Your task to perform on an android device: Open the Play Movies app and select the watchlist tab. Image 0: 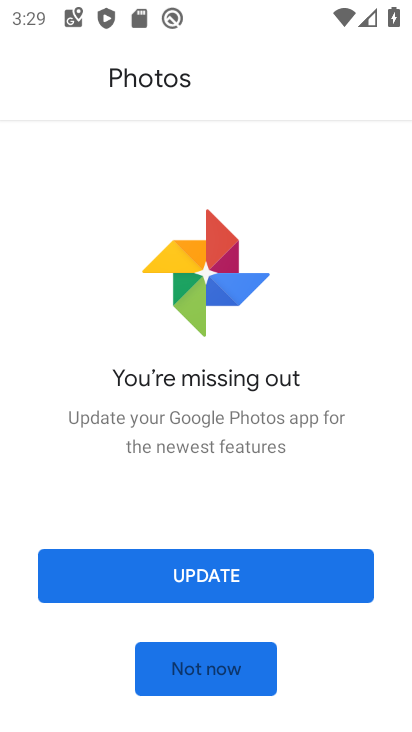
Step 0: press home button
Your task to perform on an android device: Open the Play Movies app and select the watchlist tab. Image 1: 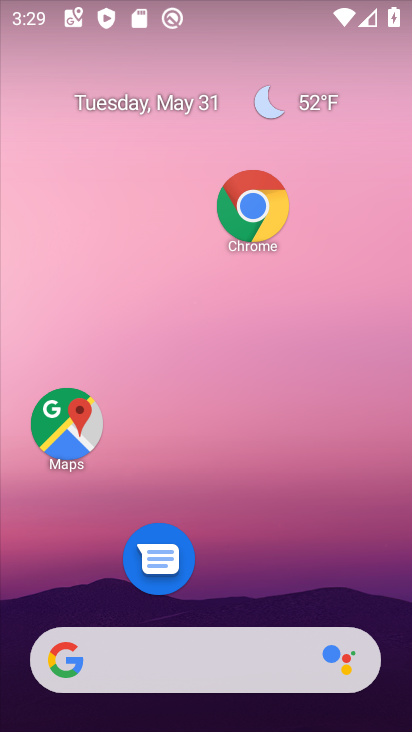
Step 1: drag from (218, 588) to (218, 146)
Your task to perform on an android device: Open the Play Movies app and select the watchlist tab. Image 2: 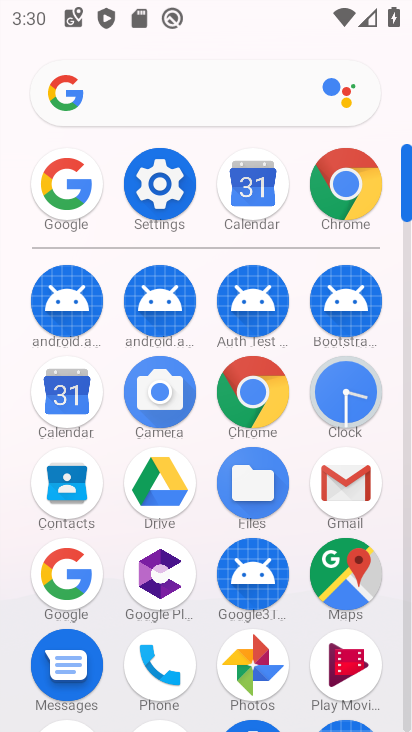
Step 2: click (342, 667)
Your task to perform on an android device: Open the Play Movies app and select the watchlist tab. Image 3: 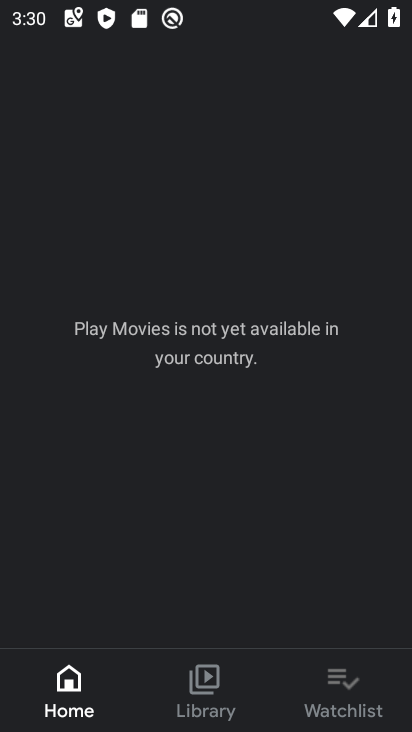
Step 3: click (336, 673)
Your task to perform on an android device: Open the Play Movies app and select the watchlist tab. Image 4: 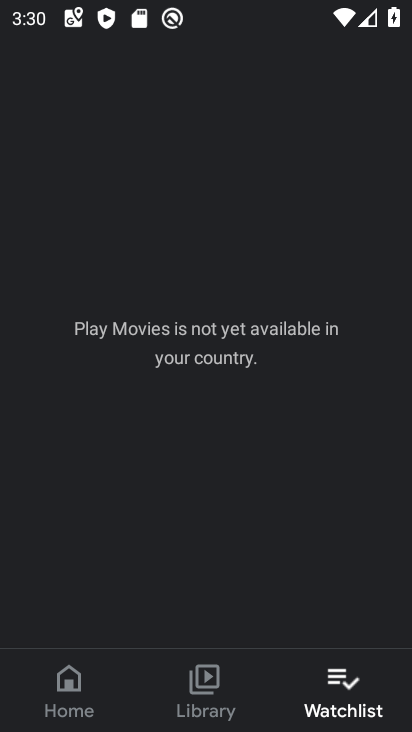
Step 4: task complete